Your task to perform on an android device: toggle javascript in the chrome app Image 0: 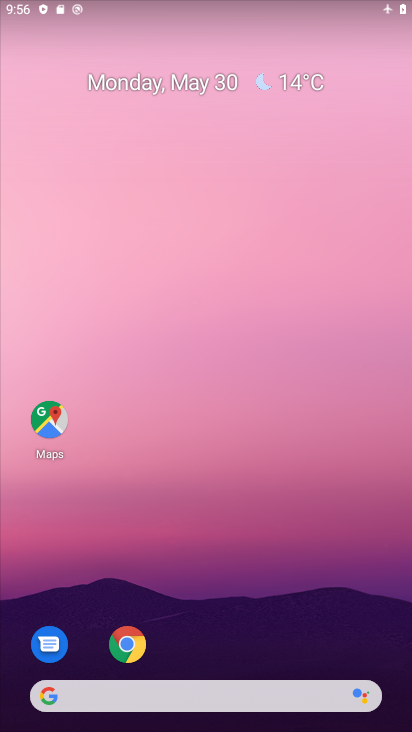
Step 0: drag from (191, 656) to (227, 212)
Your task to perform on an android device: toggle javascript in the chrome app Image 1: 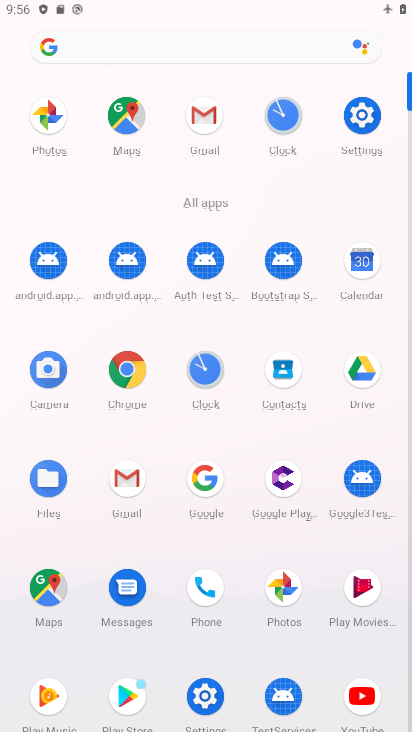
Step 1: click (126, 366)
Your task to perform on an android device: toggle javascript in the chrome app Image 2: 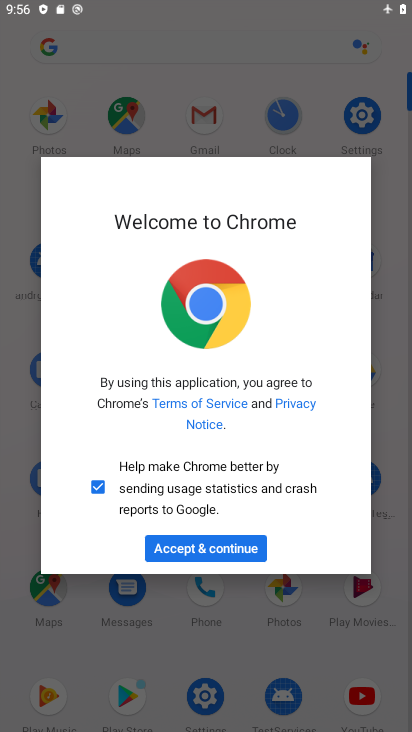
Step 2: click (202, 546)
Your task to perform on an android device: toggle javascript in the chrome app Image 3: 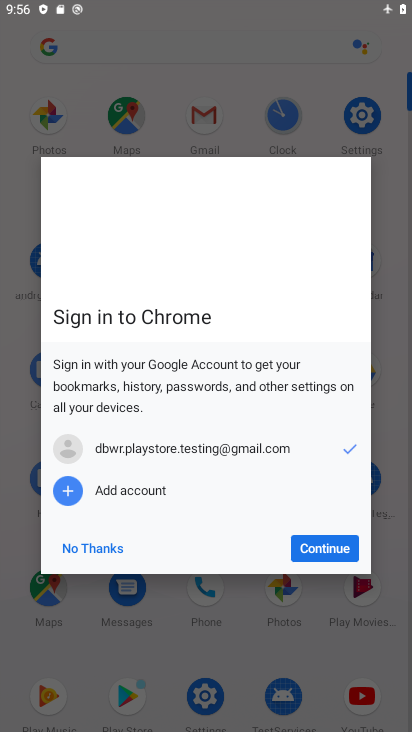
Step 3: click (346, 536)
Your task to perform on an android device: toggle javascript in the chrome app Image 4: 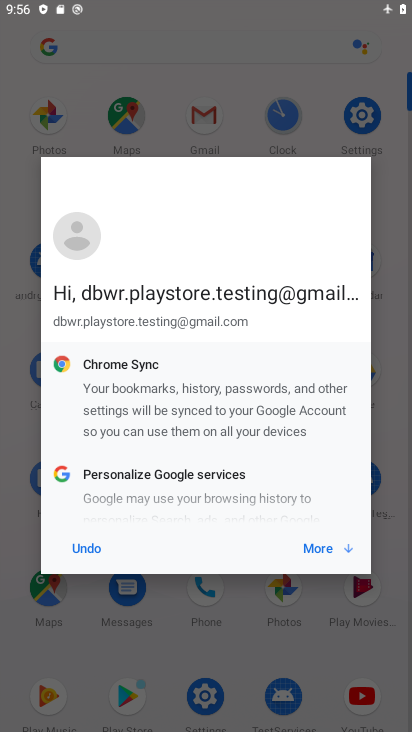
Step 4: click (326, 547)
Your task to perform on an android device: toggle javascript in the chrome app Image 5: 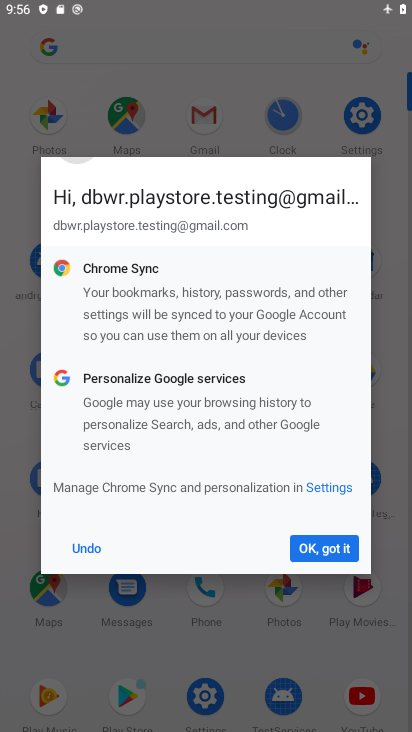
Step 5: click (326, 547)
Your task to perform on an android device: toggle javascript in the chrome app Image 6: 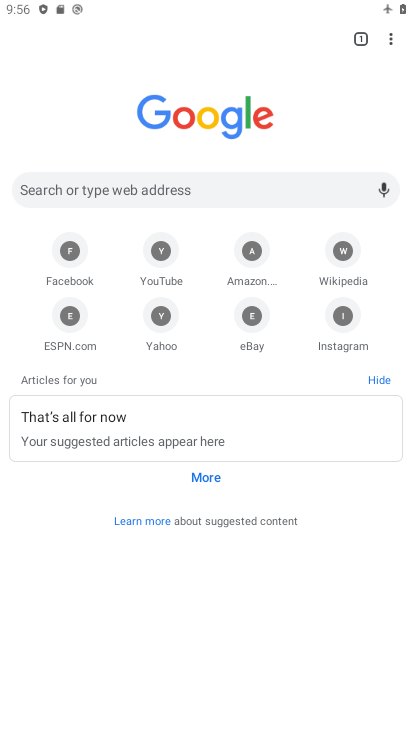
Step 6: click (390, 36)
Your task to perform on an android device: toggle javascript in the chrome app Image 7: 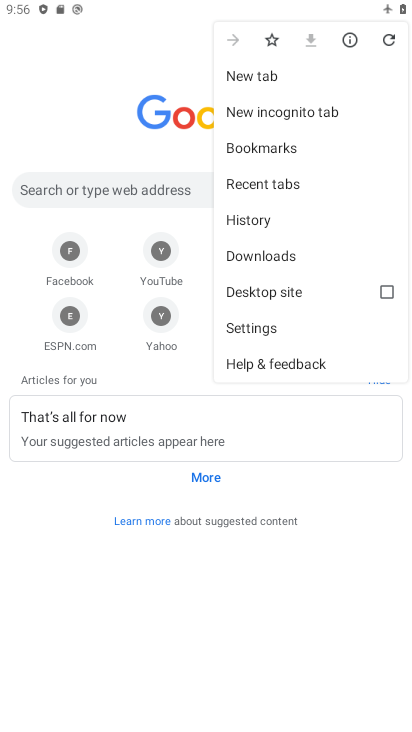
Step 7: click (269, 336)
Your task to perform on an android device: toggle javascript in the chrome app Image 8: 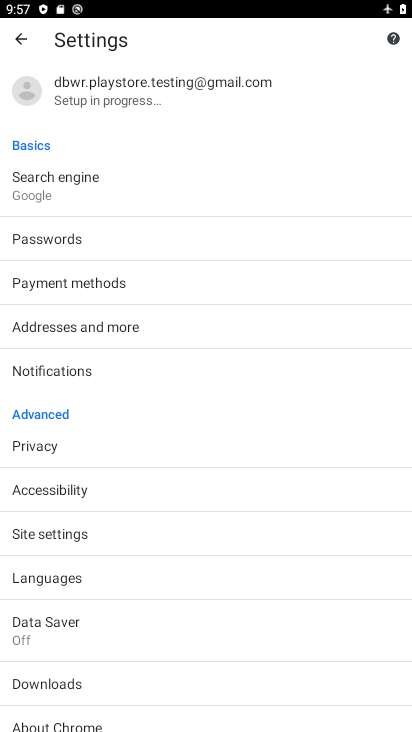
Step 8: click (68, 530)
Your task to perform on an android device: toggle javascript in the chrome app Image 9: 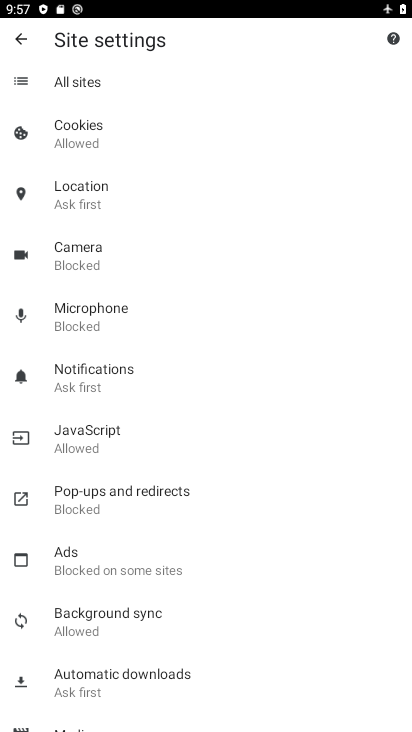
Step 9: click (94, 429)
Your task to perform on an android device: toggle javascript in the chrome app Image 10: 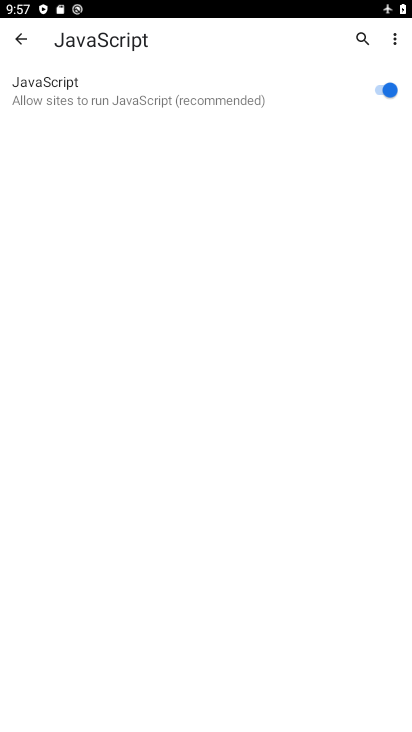
Step 10: click (381, 92)
Your task to perform on an android device: toggle javascript in the chrome app Image 11: 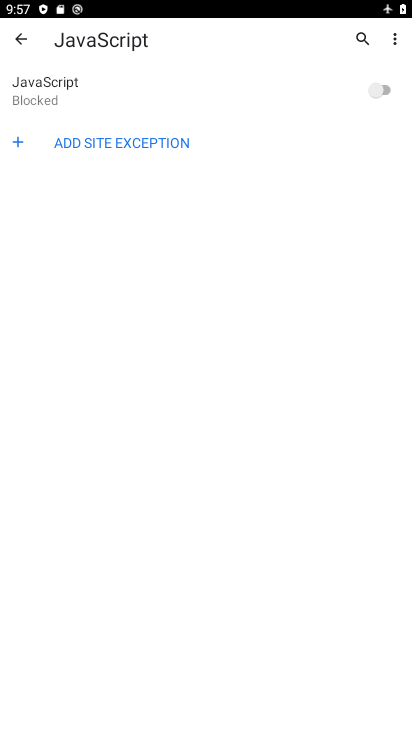
Step 11: task complete